Your task to perform on an android device: Go to wifi settings Image 0: 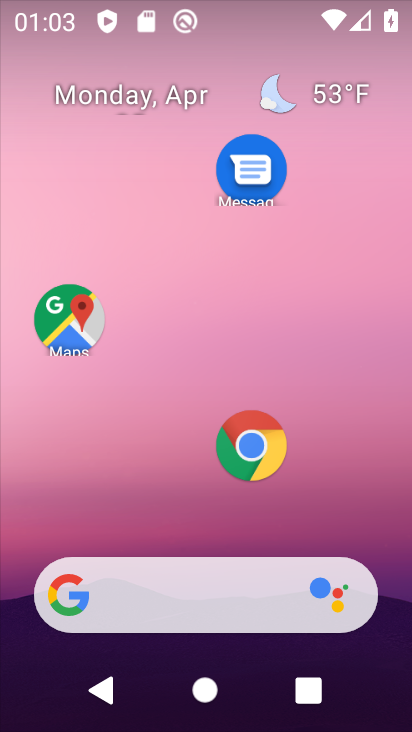
Step 0: drag from (169, 516) to (217, 33)
Your task to perform on an android device: Go to wifi settings Image 1: 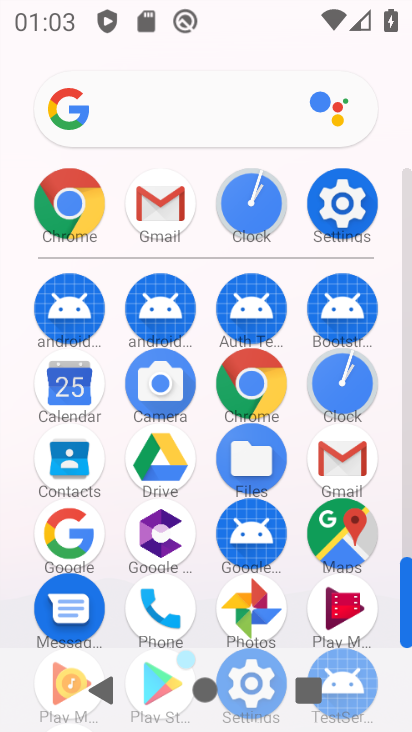
Step 1: click (351, 204)
Your task to perform on an android device: Go to wifi settings Image 2: 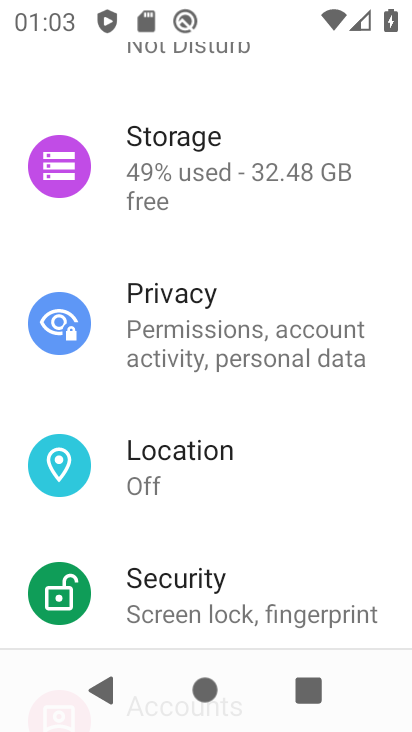
Step 2: drag from (289, 192) to (222, 591)
Your task to perform on an android device: Go to wifi settings Image 3: 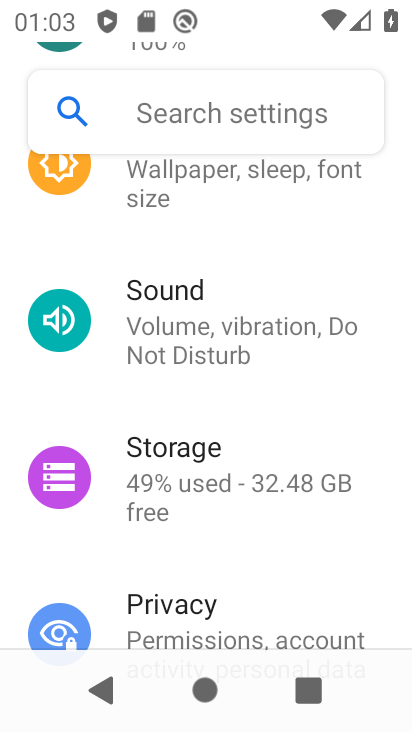
Step 3: drag from (215, 321) to (179, 646)
Your task to perform on an android device: Go to wifi settings Image 4: 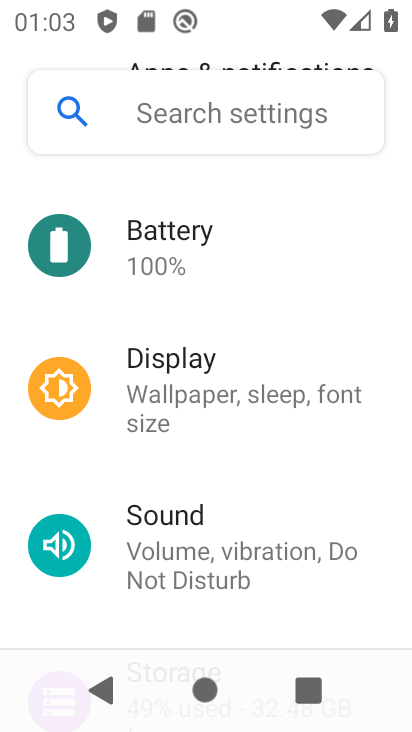
Step 4: drag from (210, 298) to (209, 580)
Your task to perform on an android device: Go to wifi settings Image 5: 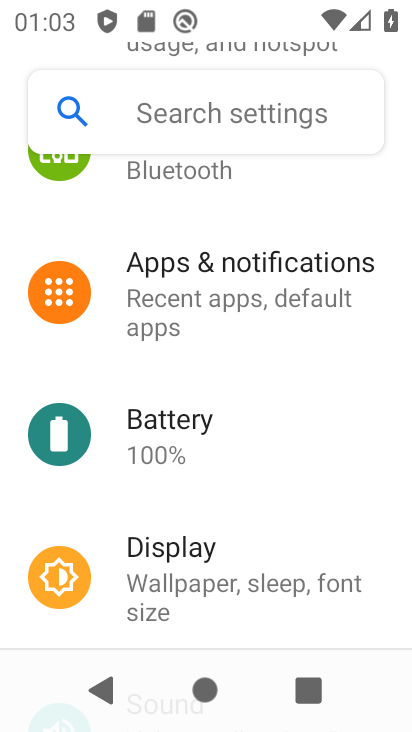
Step 5: drag from (260, 308) to (262, 617)
Your task to perform on an android device: Go to wifi settings Image 6: 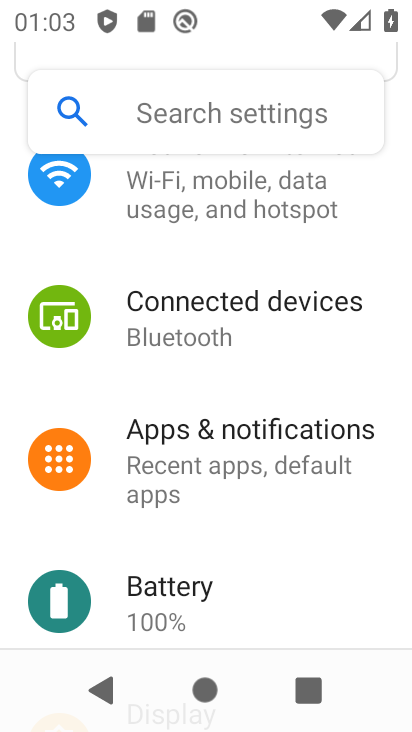
Step 6: drag from (245, 223) to (236, 542)
Your task to perform on an android device: Go to wifi settings Image 7: 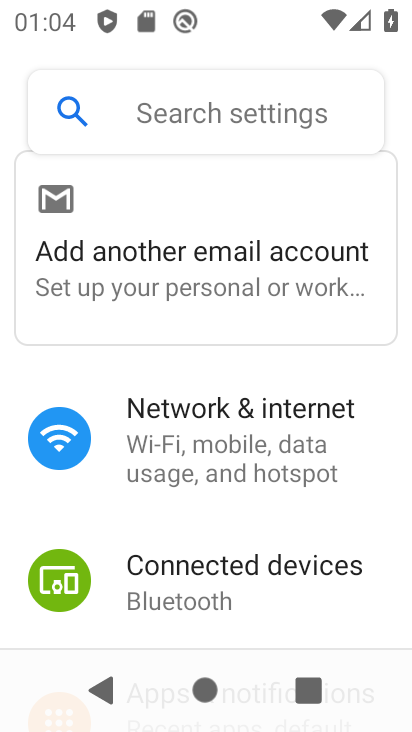
Step 7: click (195, 436)
Your task to perform on an android device: Go to wifi settings Image 8: 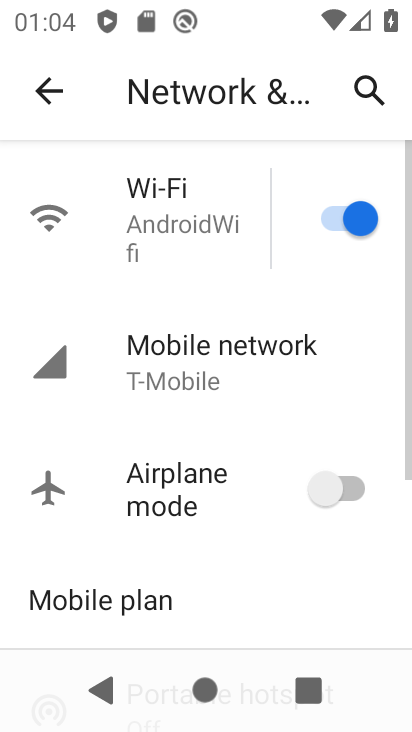
Step 8: click (157, 255)
Your task to perform on an android device: Go to wifi settings Image 9: 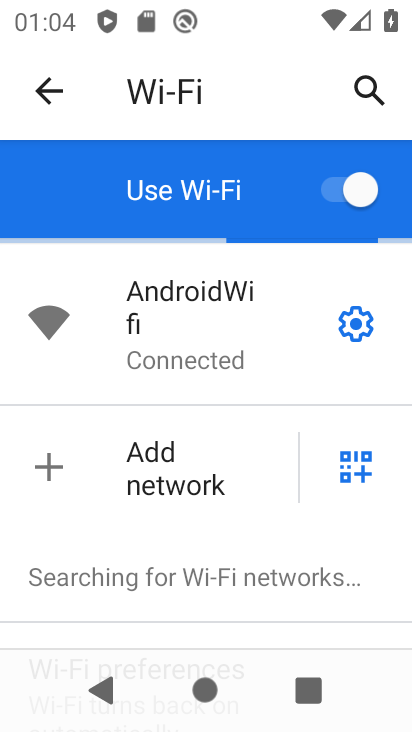
Step 9: task complete